Your task to perform on an android device: Go to Wikipedia Image 0: 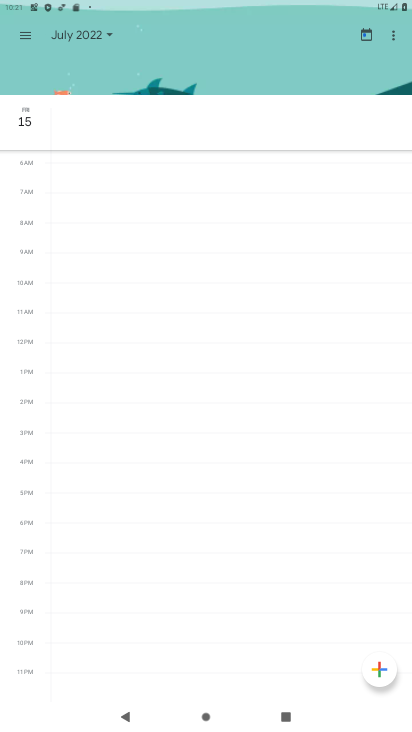
Step 0: press home button
Your task to perform on an android device: Go to Wikipedia Image 1: 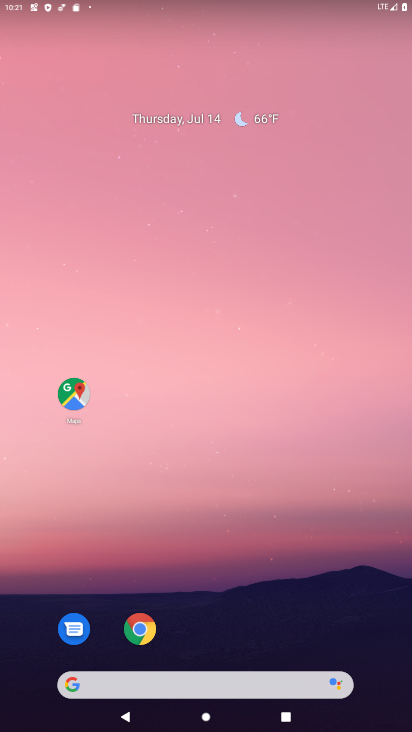
Step 1: click (67, 677)
Your task to perform on an android device: Go to Wikipedia Image 2: 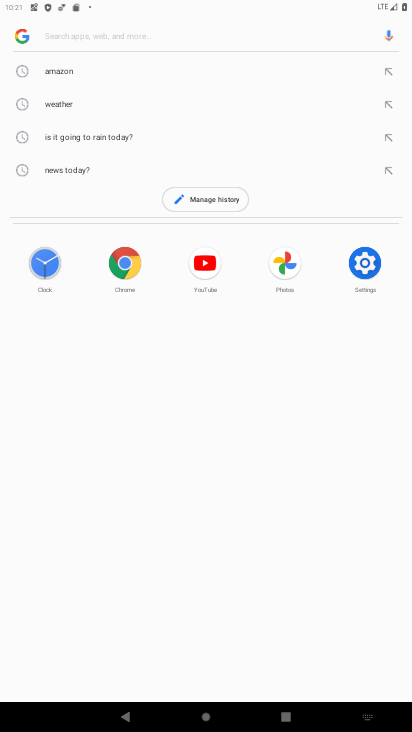
Step 2: type "Wikipedia"
Your task to perform on an android device: Go to Wikipedia Image 3: 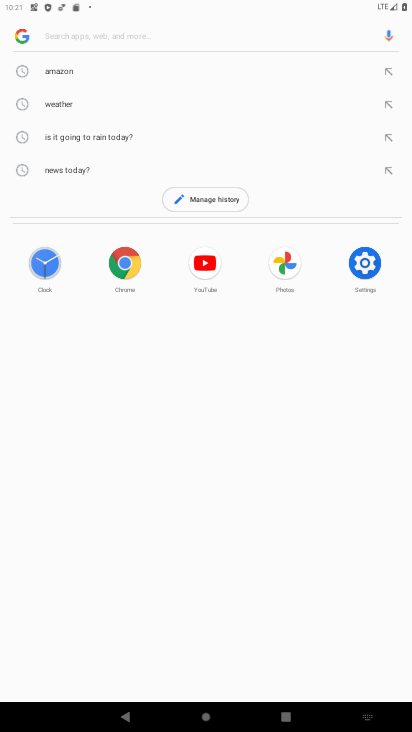
Step 3: click (72, 32)
Your task to perform on an android device: Go to Wikipedia Image 4: 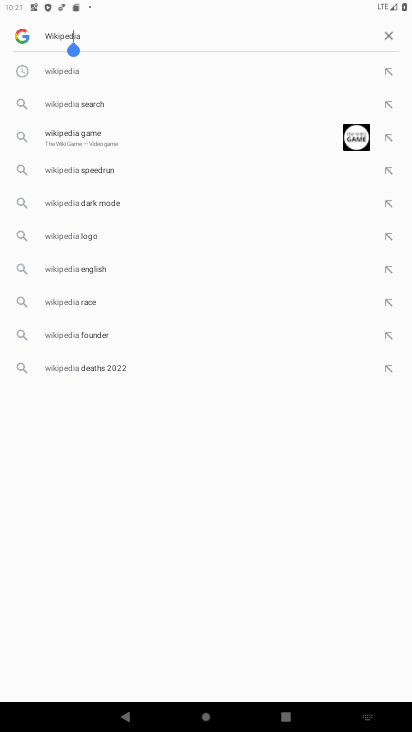
Step 4: press enter
Your task to perform on an android device: Go to Wikipedia Image 5: 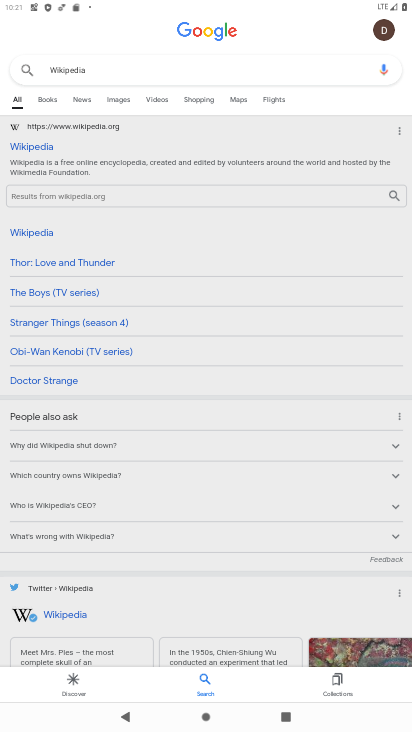
Step 5: click (30, 145)
Your task to perform on an android device: Go to Wikipedia Image 6: 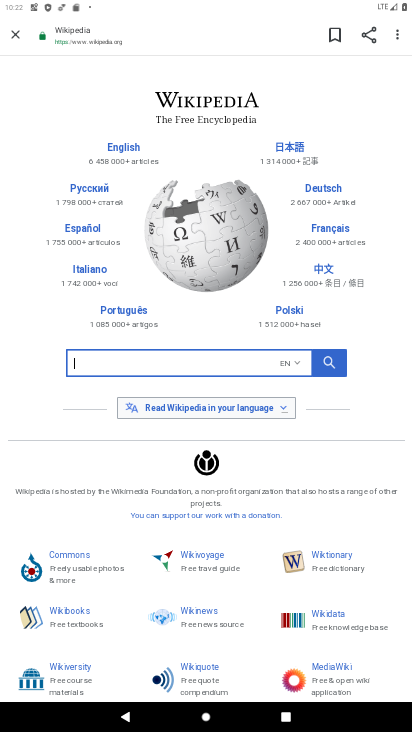
Step 6: task complete